Your task to perform on an android device: Show me popular videos on Youtube Image 0: 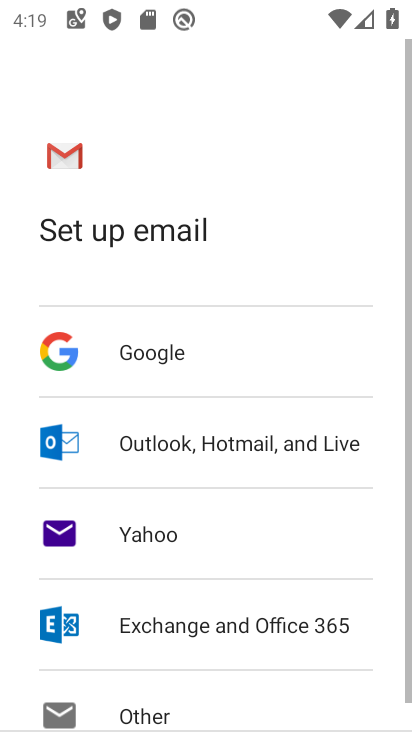
Step 0: press home button
Your task to perform on an android device: Show me popular videos on Youtube Image 1: 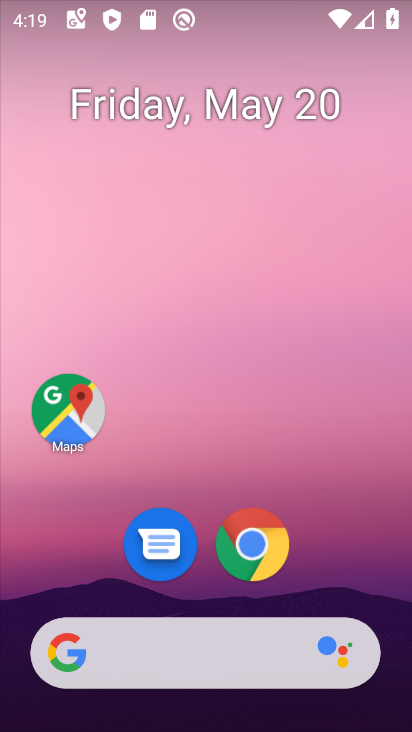
Step 1: drag from (352, 603) to (382, 9)
Your task to perform on an android device: Show me popular videos on Youtube Image 2: 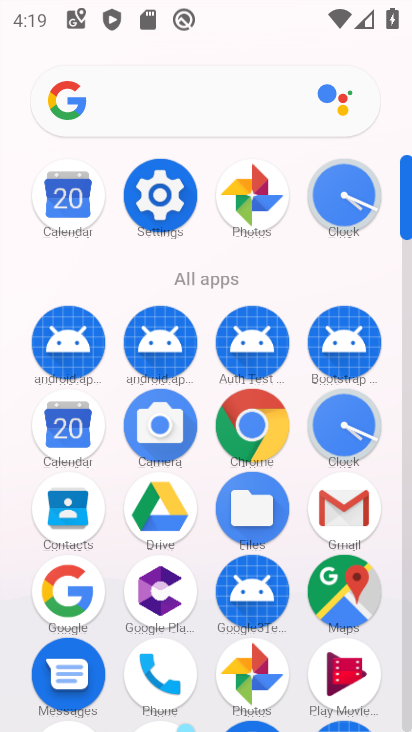
Step 2: click (406, 548)
Your task to perform on an android device: Show me popular videos on Youtube Image 3: 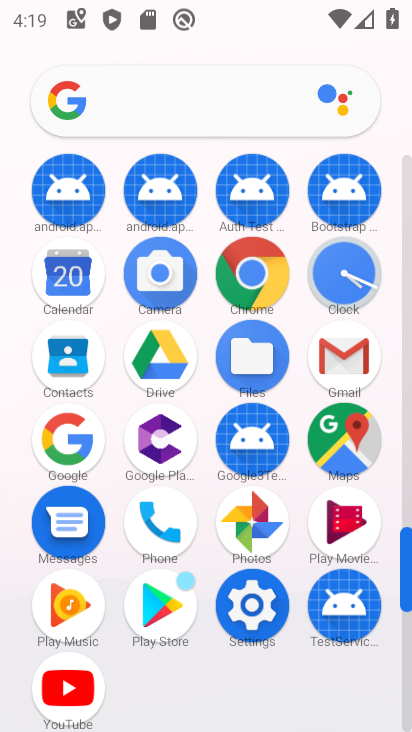
Step 3: click (72, 688)
Your task to perform on an android device: Show me popular videos on Youtube Image 4: 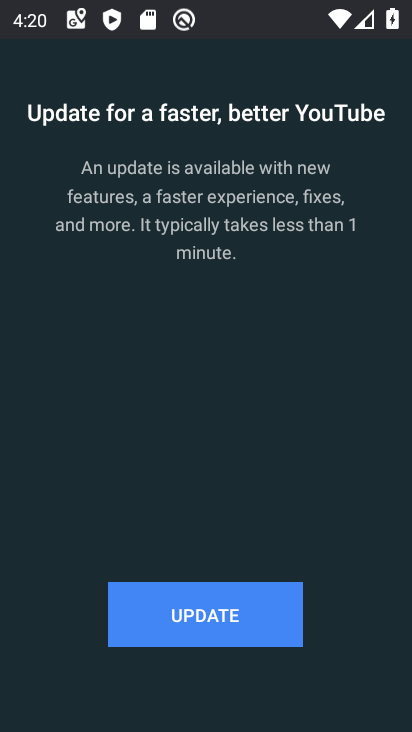
Step 4: click (197, 622)
Your task to perform on an android device: Show me popular videos on Youtube Image 5: 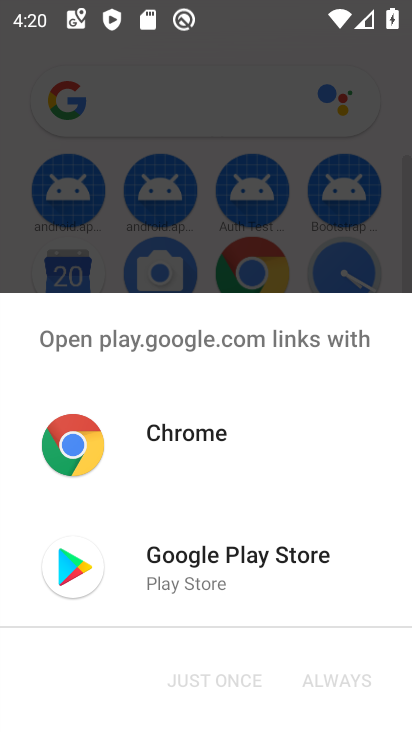
Step 5: click (200, 575)
Your task to perform on an android device: Show me popular videos on Youtube Image 6: 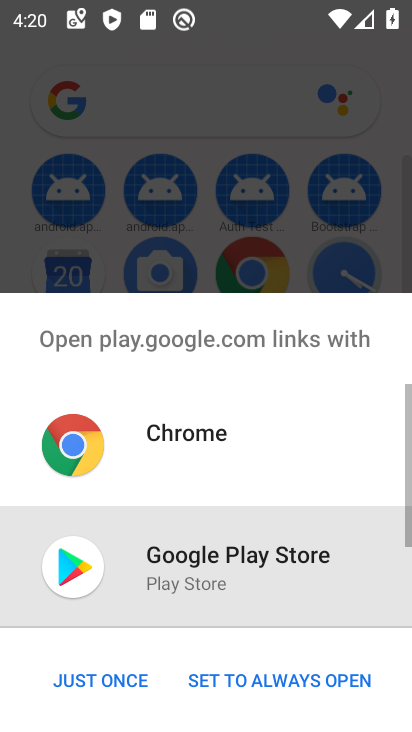
Step 6: click (64, 672)
Your task to perform on an android device: Show me popular videos on Youtube Image 7: 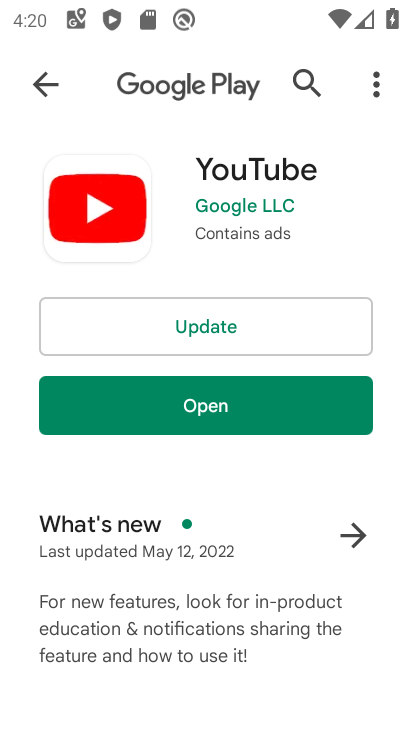
Step 7: click (192, 335)
Your task to perform on an android device: Show me popular videos on Youtube Image 8: 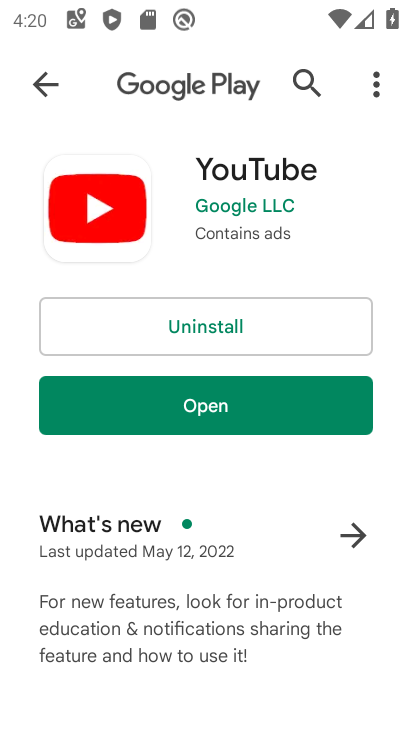
Step 8: click (191, 412)
Your task to perform on an android device: Show me popular videos on Youtube Image 9: 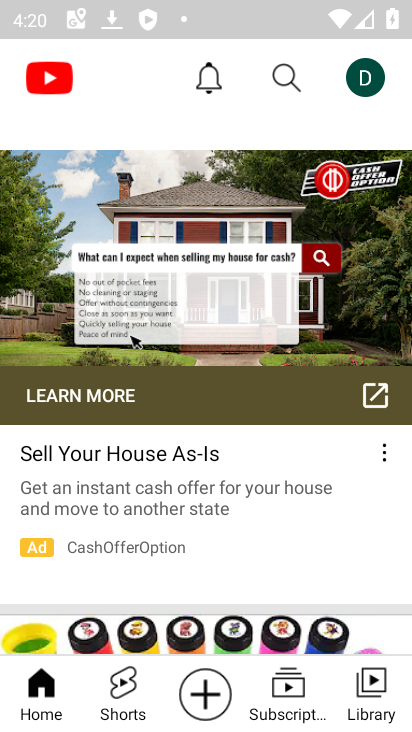
Step 9: click (48, 708)
Your task to perform on an android device: Show me popular videos on Youtube Image 10: 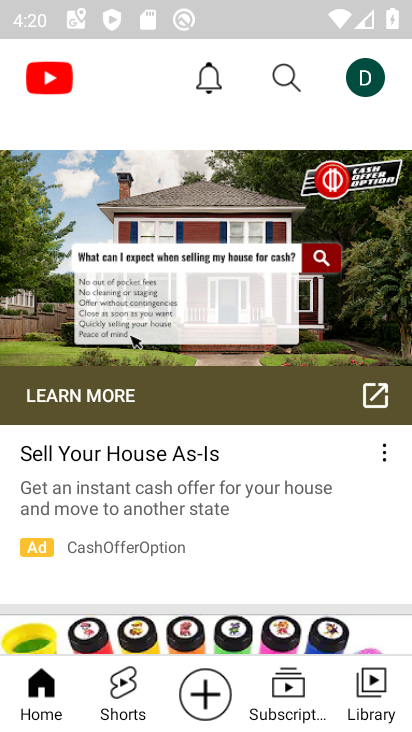
Step 10: task complete